Your task to perform on an android device: Is it going to rain tomorrow? Image 0: 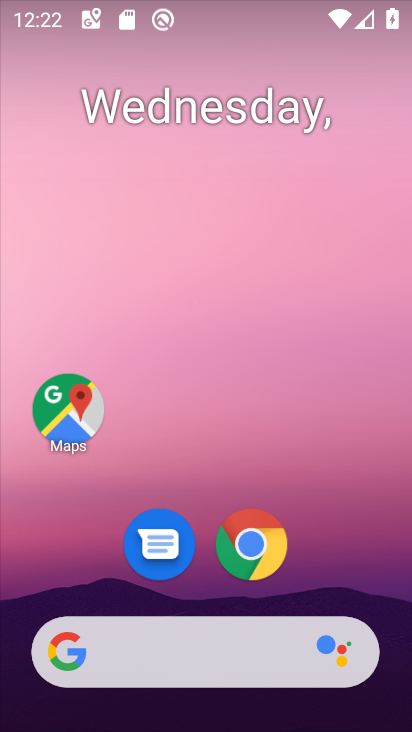
Step 0: drag from (202, 477) to (225, 157)
Your task to perform on an android device: Is it going to rain tomorrow? Image 1: 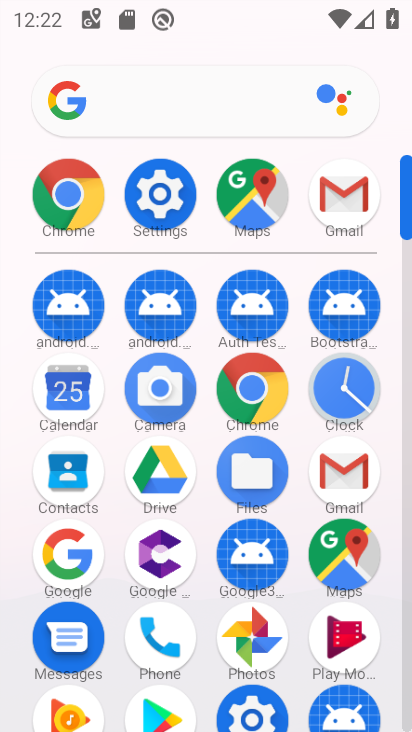
Step 1: drag from (201, 263) to (197, 84)
Your task to perform on an android device: Is it going to rain tomorrow? Image 2: 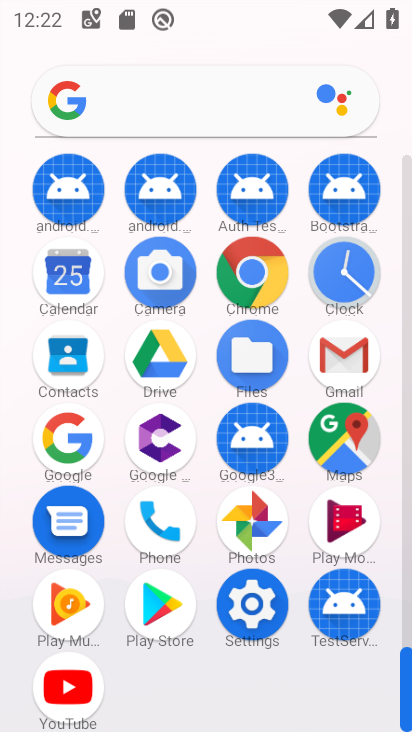
Step 2: click (65, 436)
Your task to perform on an android device: Is it going to rain tomorrow? Image 3: 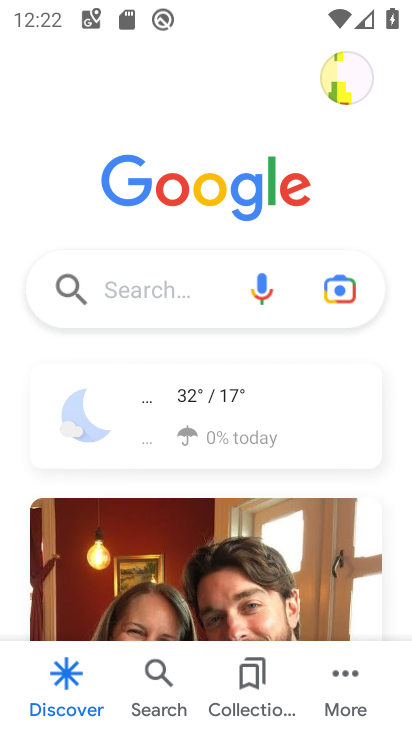
Step 3: click (201, 421)
Your task to perform on an android device: Is it going to rain tomorrow? Image 4: 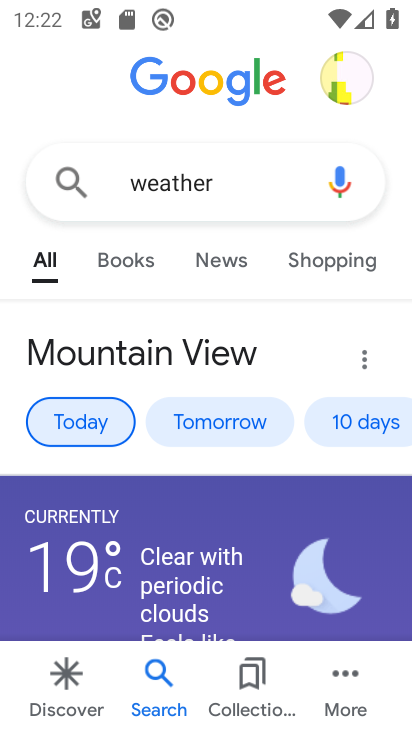
Step 4: click (217, 440)
Your task to perform on an android device: Is it going to rain tomorrow? Image 5: 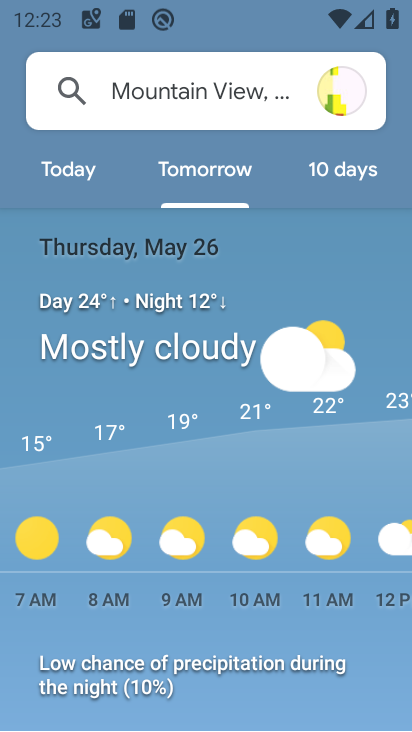
Step 5: task complete